Your task to perform on an android device: toggle priority inbox in the gmail app Image 0: 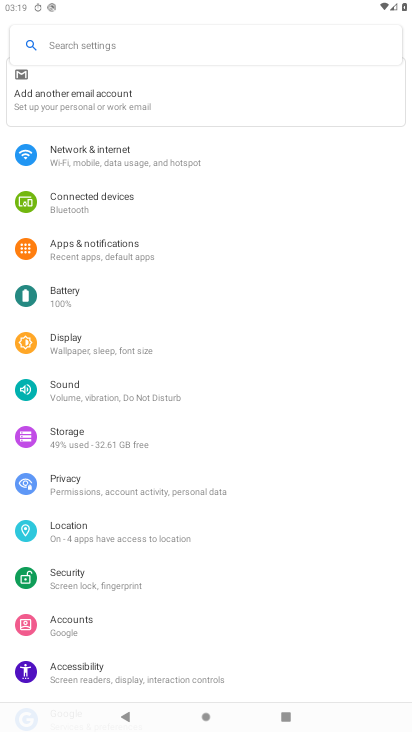
Step 0: press home button
Your task to perform on an android device: toggle priority inbox in the gmail app Image 1: 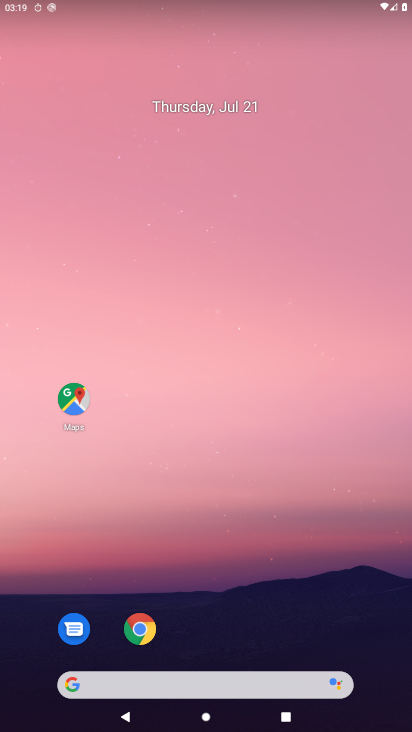
Step 1: drag from (38, 696) to (269, 217)
Your task to perform on an android device: toggle priority inbox in the gmail app Image 2: 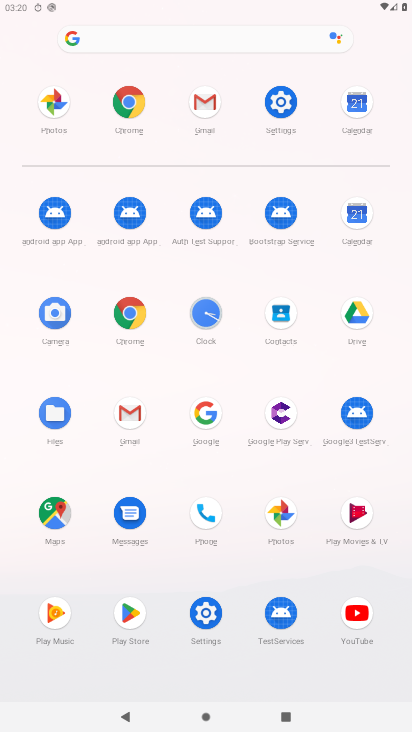
Step 2: click (141, 413)
Your task to perform on an android device: toggle priority inbox in the gmail app Image 3: 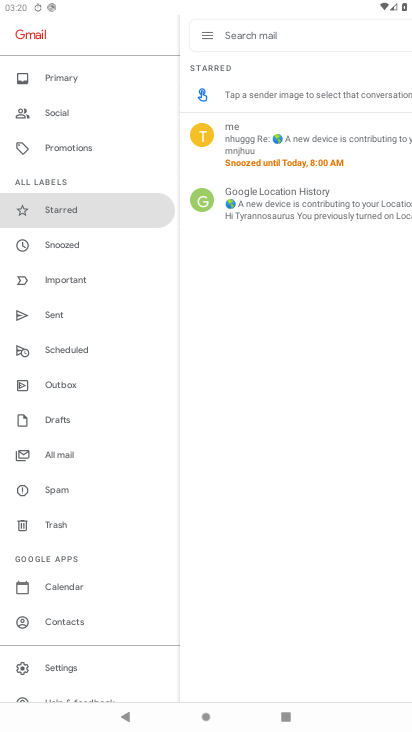
Step 3: click (61, 667)
Your task to perform on an android device: toggle priority inbox in the gmail app Image 4: 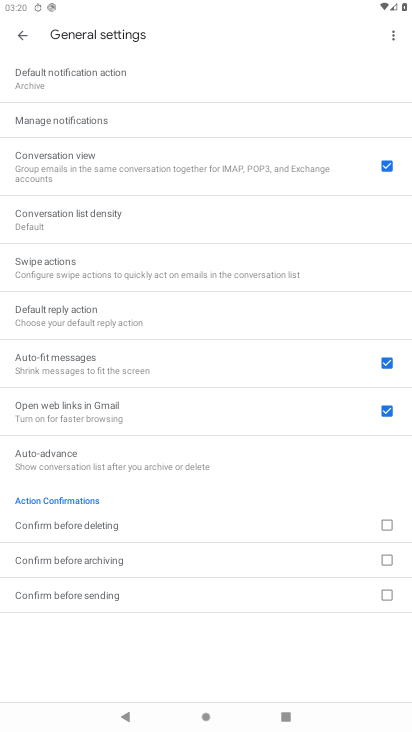
Step 4: click (55, 122)
Your task to perform on an android device: toggle priority inbox in the gmail app Image 5: 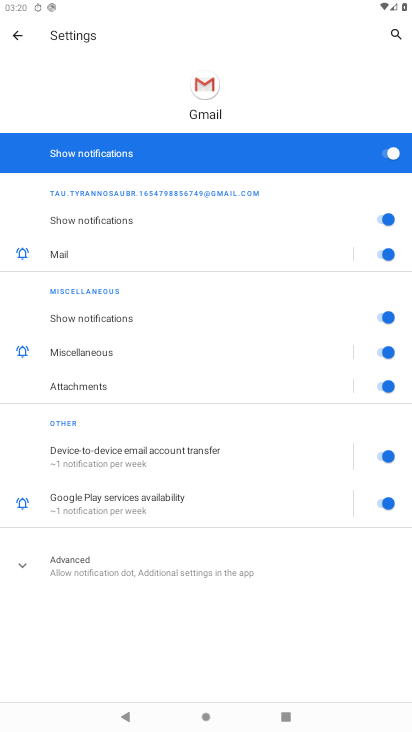
Step 5: task complete